Your task to perform on an android device: Go to notification settings Image 0: 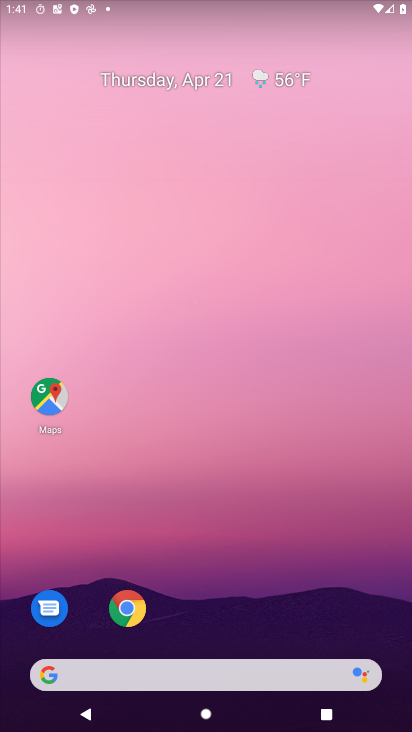
Step 0: drag from (274, 532) to (312, 9)
Your task to perform on an android device: Go to notification settings Image 1: 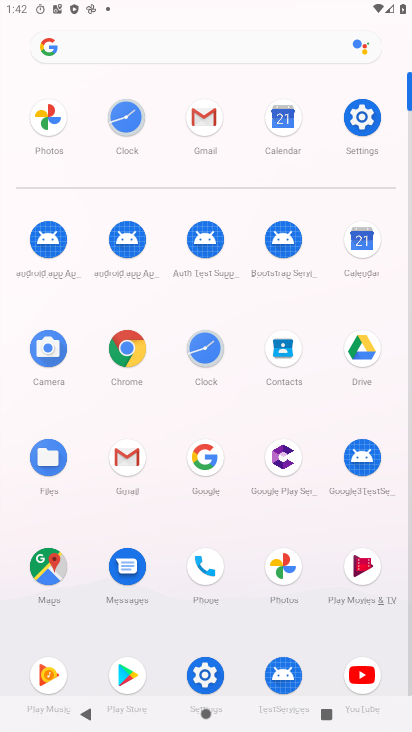
Step 1: click (366, 117)
Your task to perform on an android device: Go to notification settings Image 2: 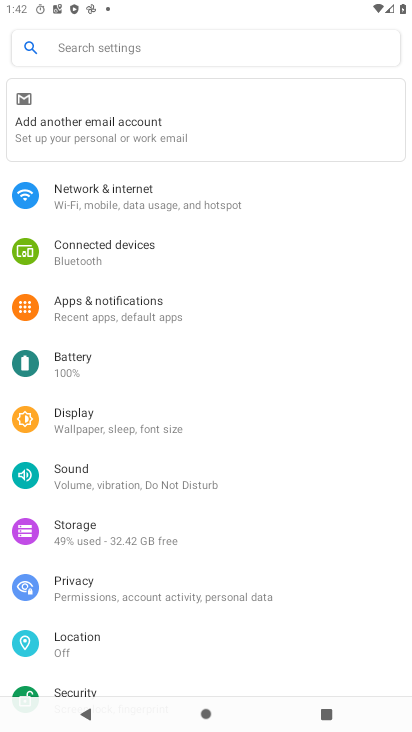
Step 2: click (113, 319)
Your task to perform on an android device: Go to notification settings Image 3: 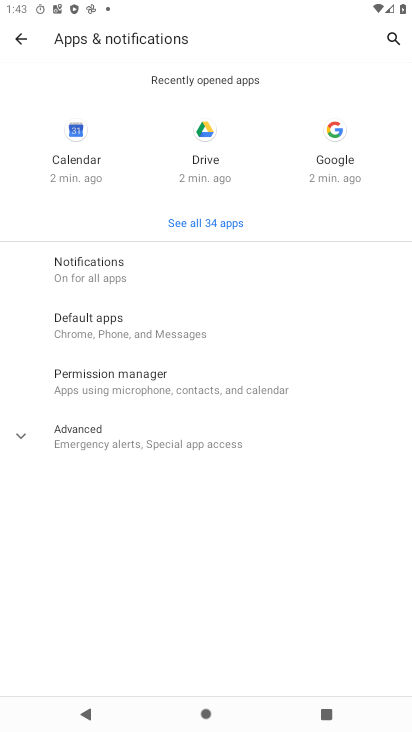
Step 3: task complete